Your task to perform on an android device: Add "logitech g pro" to the cart on bestbuy, then select checkout. Image 0: 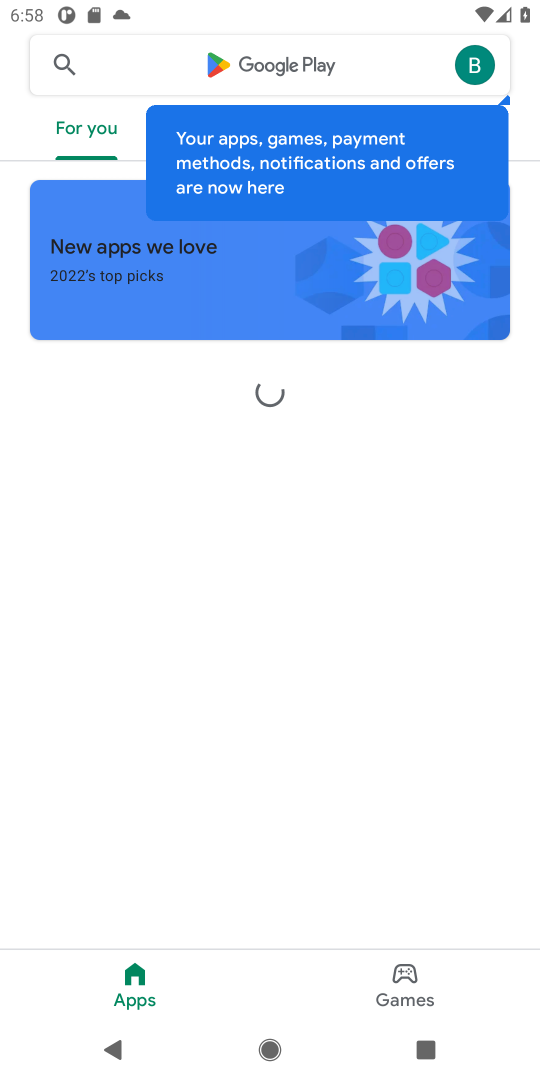
Step 0: press home button
Your task to perform on an android device: Add "logitech g pro" to the cart on bestbuy, then select checkout. Image 1: 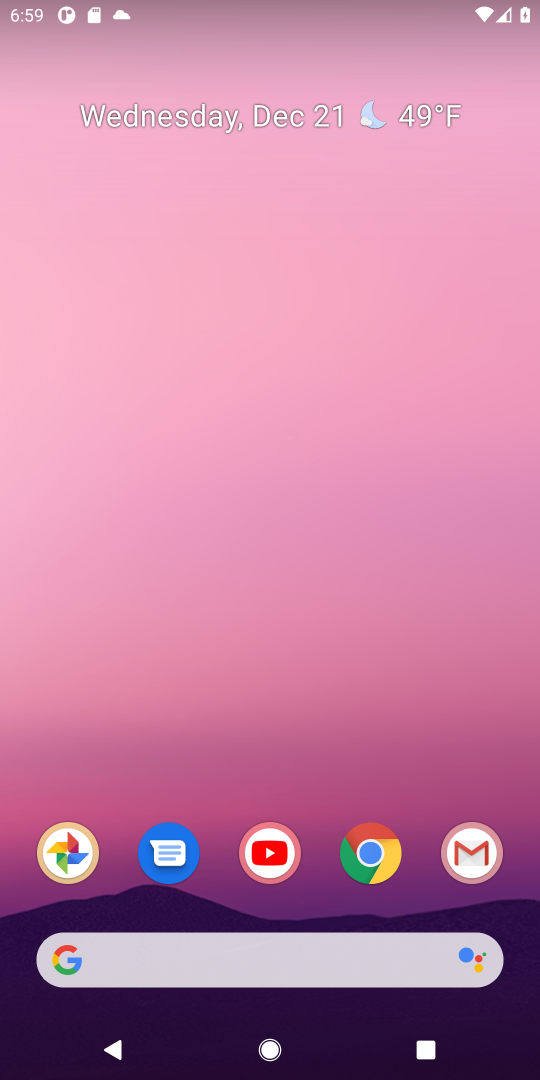
Step 1: click (370, 856)
Your task to perform on an android device: Add "logitech g pro" to the cart on bestbuy, then select checkout. Image 2: 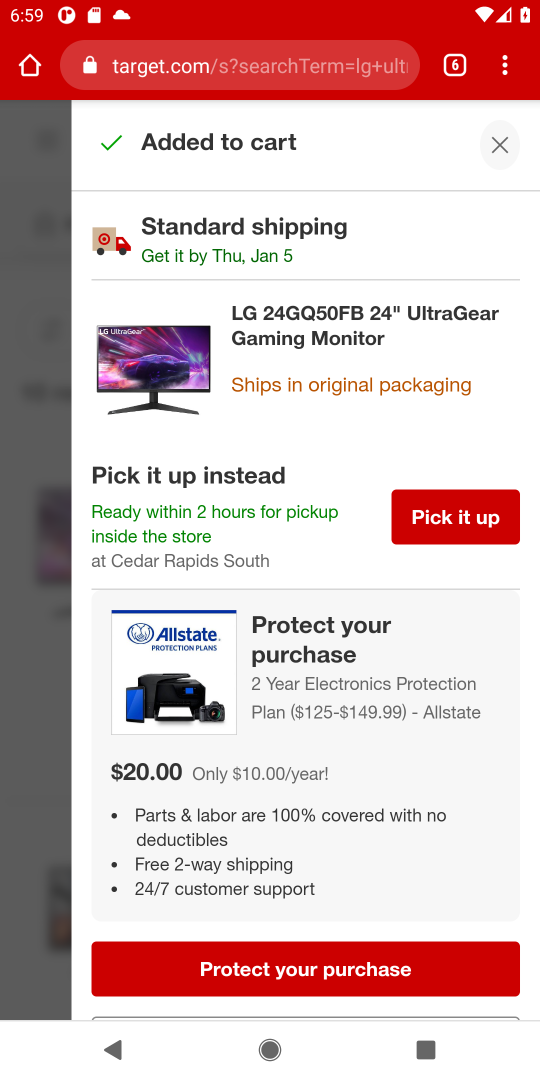
Step 2: click (455, 54)
Your task to perform on an android device: Add "logitech g pro" to the cart on bestbuy, then select checkout. Image 3: 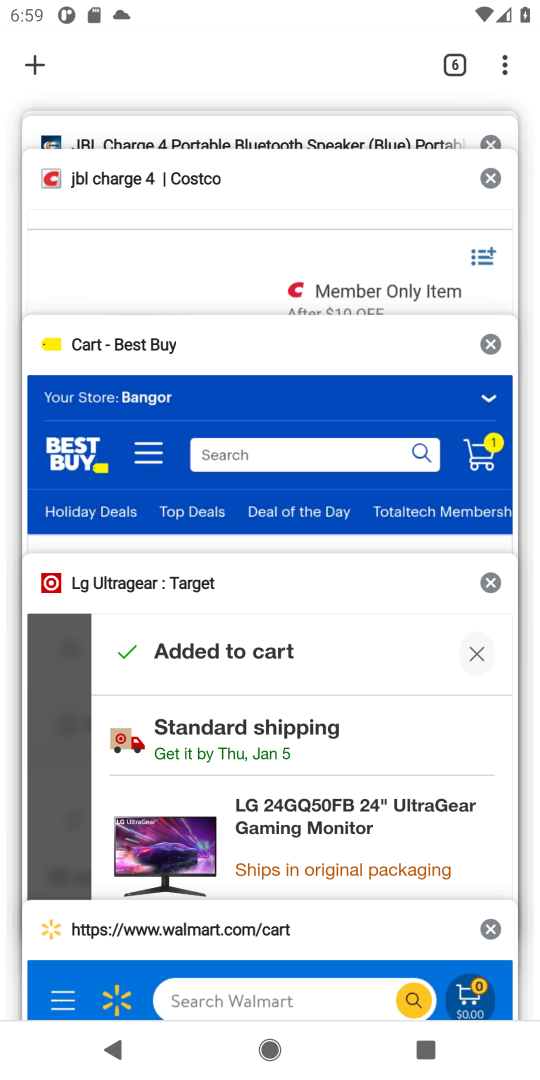
Step 3: click (95, 411)
Your task to perform on an android device: Add "logitech g pro" to the cart on bestbuy, then select checkout. Image 4: 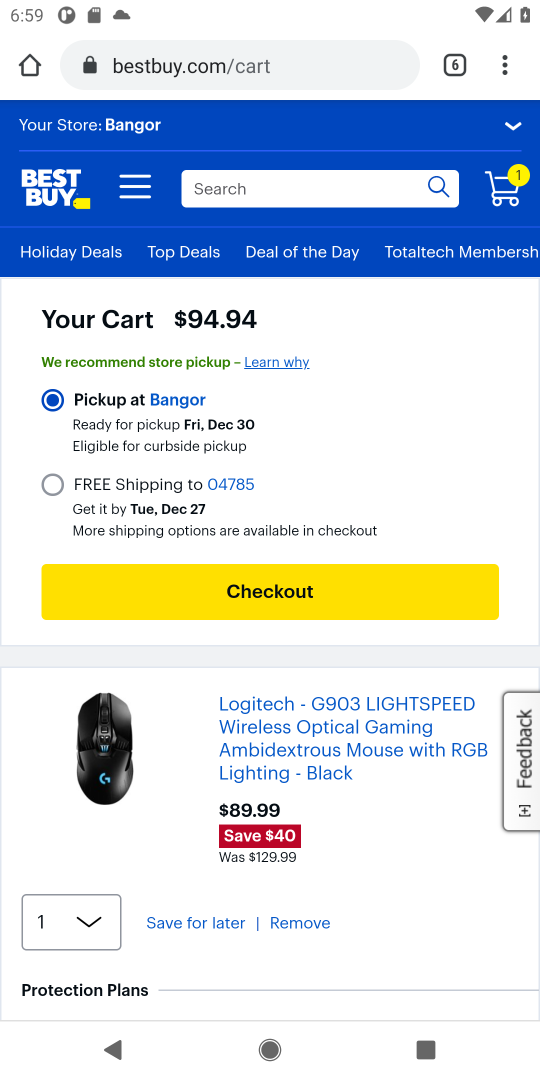
Step 4: click (239, 190)
Your task to perform on an android device: Add "logitech g pro" to the cart on bestbuy, then select checkout. Image 5: 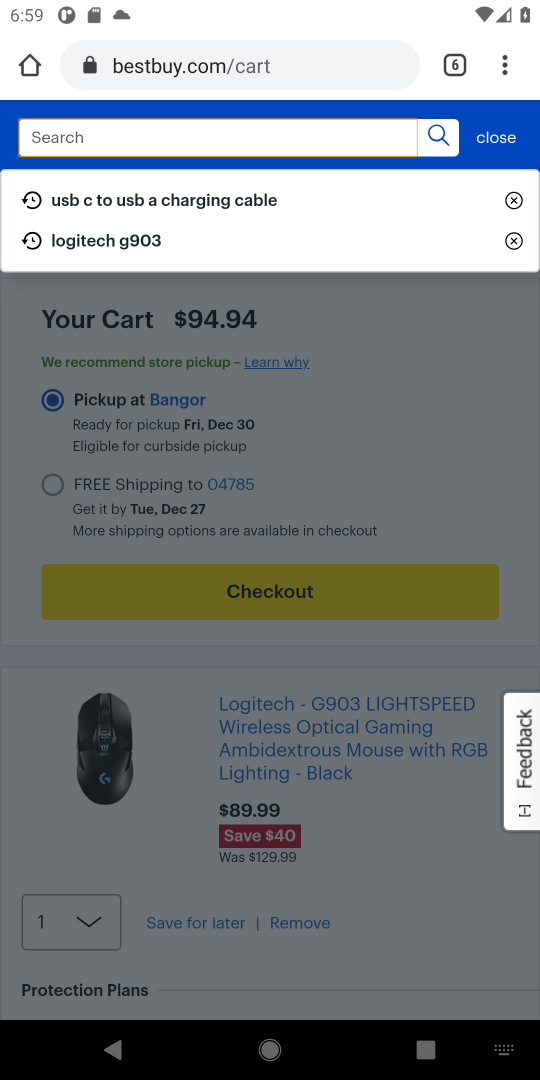
Step 5: type "logitech g pro"
Your task to perform on an android device: Add "logitech g pro" to the cart on bestbuy, then select checkout. Image 6: 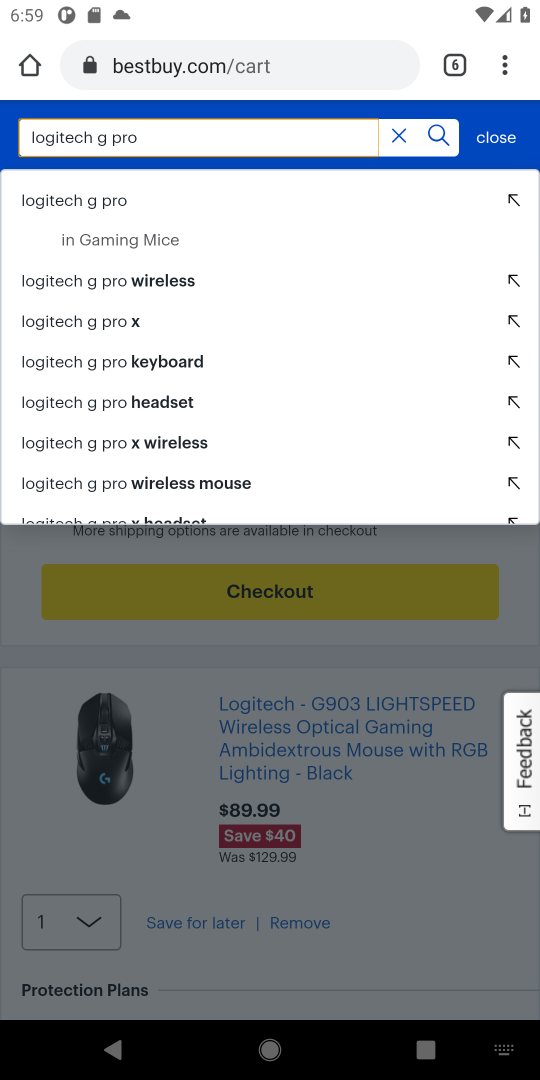
Step 6: click (434, 131)
Your task to perform on an android device: Add "logitech g pro" to the cart on bestbuy, then select checkout. Image 7: 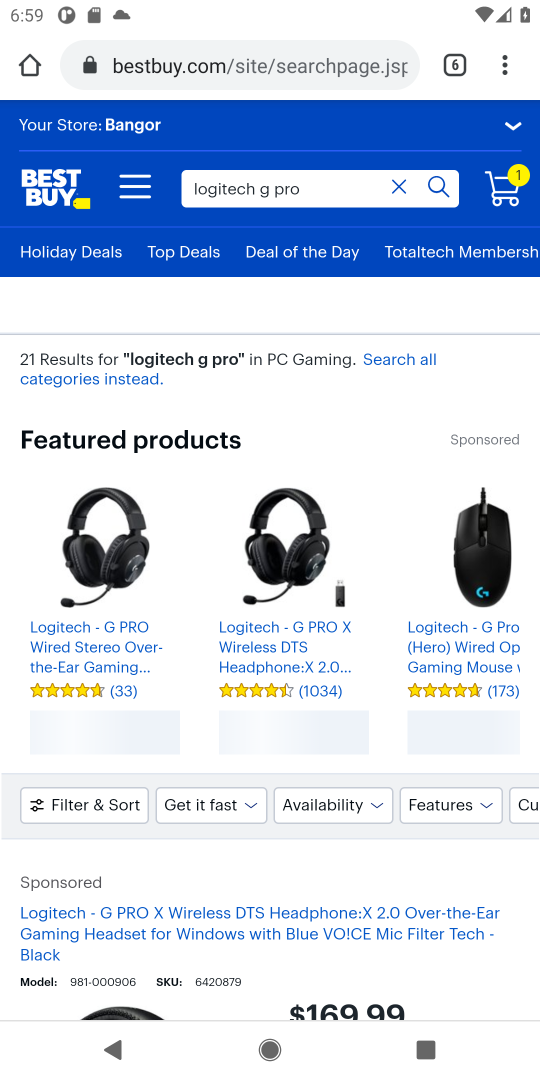
Step 7: drag from (227, 887) to (283, 636)
Your task to perform on an android device: Add "logitech g pro" to the cart on bestbuy, then select checkout. Image 8: 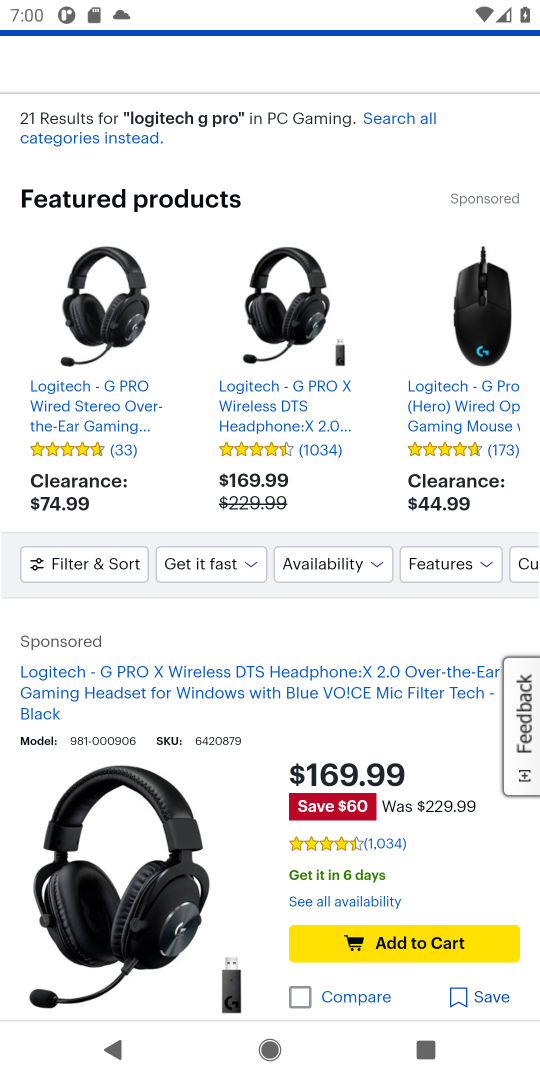
Step 8: click (338, 947)
Your task to perform on an android device: Add "logitech g pro" to the cart on bestbuy, then select checkout. Image 9: 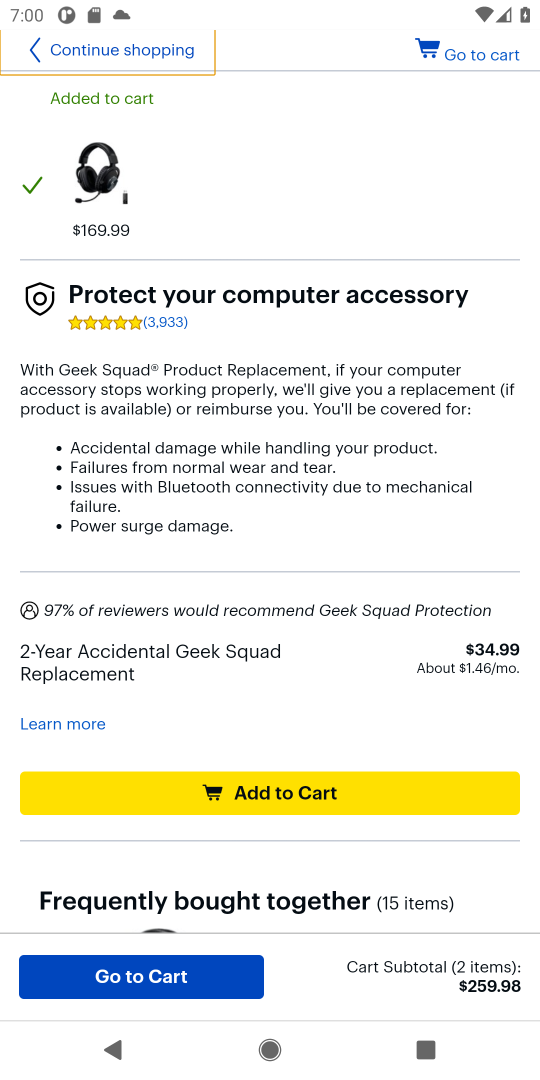
Step 9: task complete